Your task to perform on an android device: toggle airplane mode Image 0: 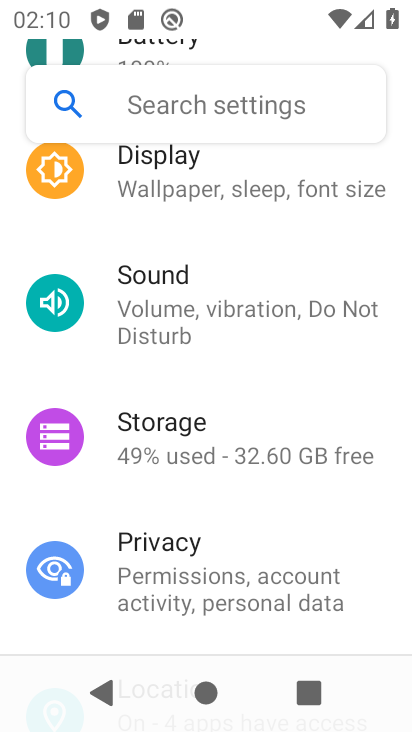
Step 0: press home button
Your task to perform on an android device: toggle airplane mode Image 1: 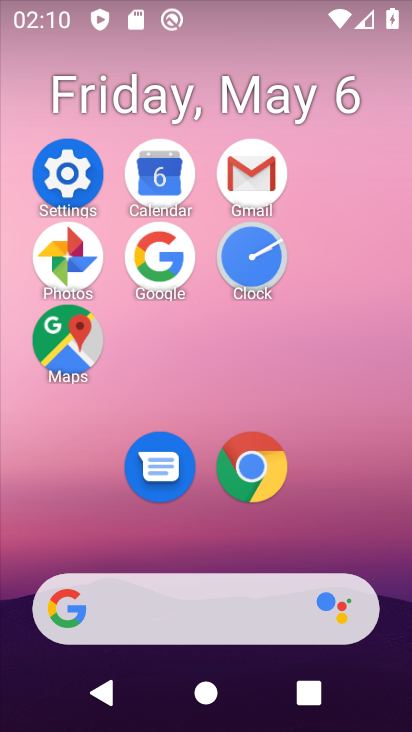
Step 1: click (90, 180)
Your task to perform on an android device: toggle airplane mode Image 2: 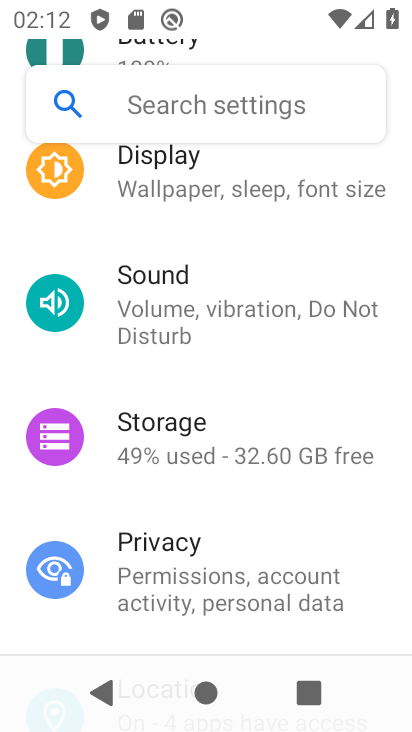
Step 2: drag from (240, 216) to (274, 577)
Your task to perform on an android device: toggle airplane mode Image 3: 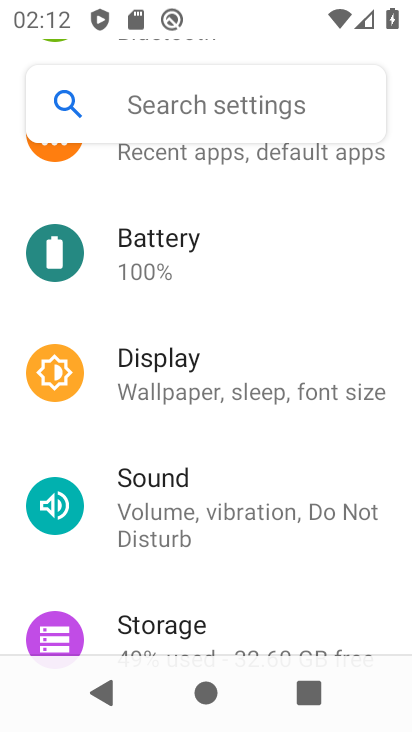
Step 3: drag from (252, 255) to (295, 491)
Your task to perform on an android device: toggle airplane mode Image 4: 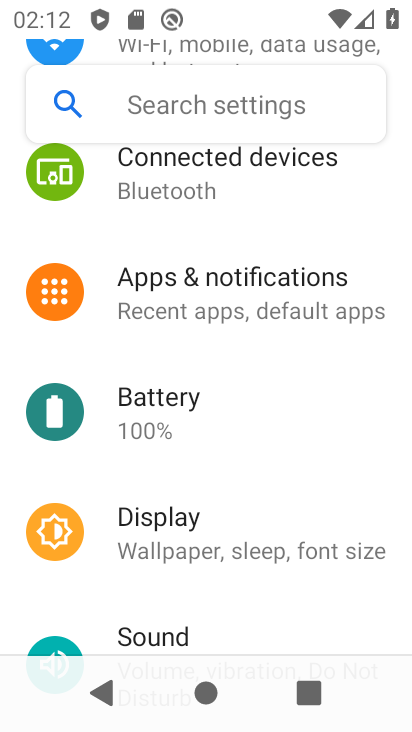
Step 4: drag from (253, 186) to (301, 477)
Your task to perform on an android device: toggle airplane mode Image 5: 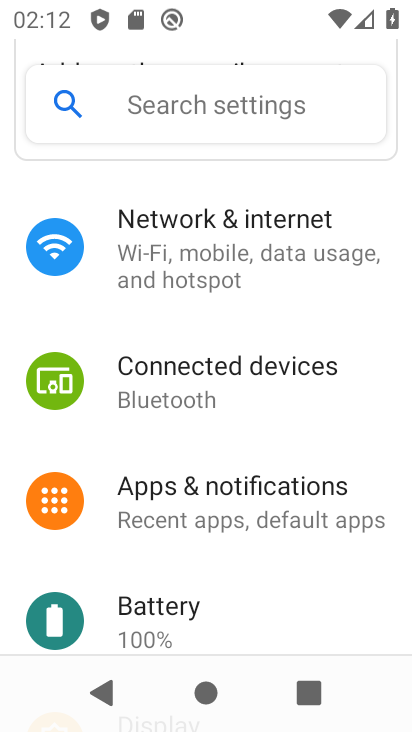
Step 5: click (234, 279)
Your task to perform on an android device: toggle airplane mode Image 6: 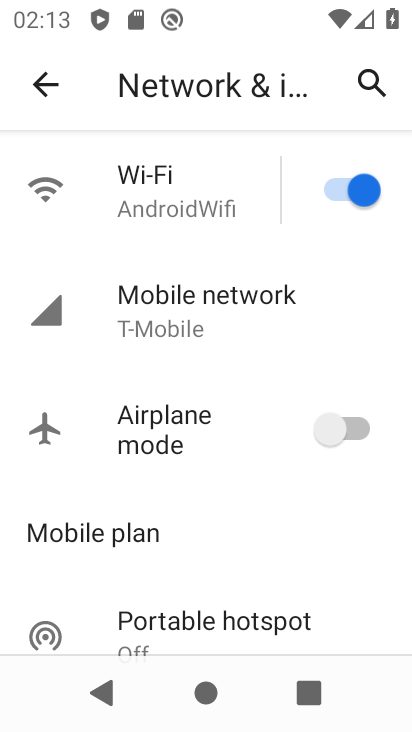
Step 6: click (325, 435)
Your task to perform on an android device: toggle airplane mode Image 7: 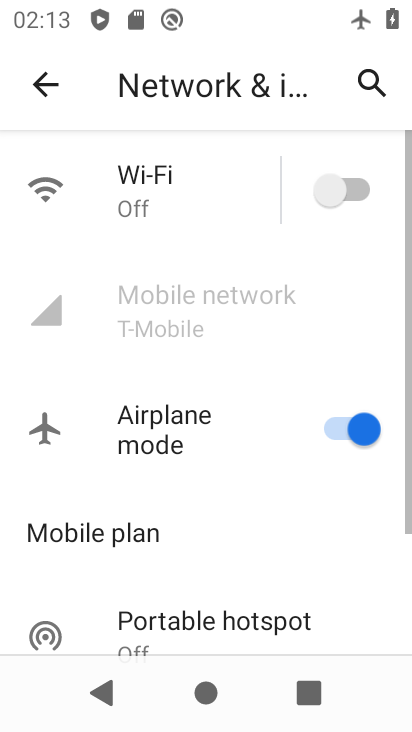
Step 7: task complete